Your task to perform on an android device: Open Maps and search for coffee Image 0: 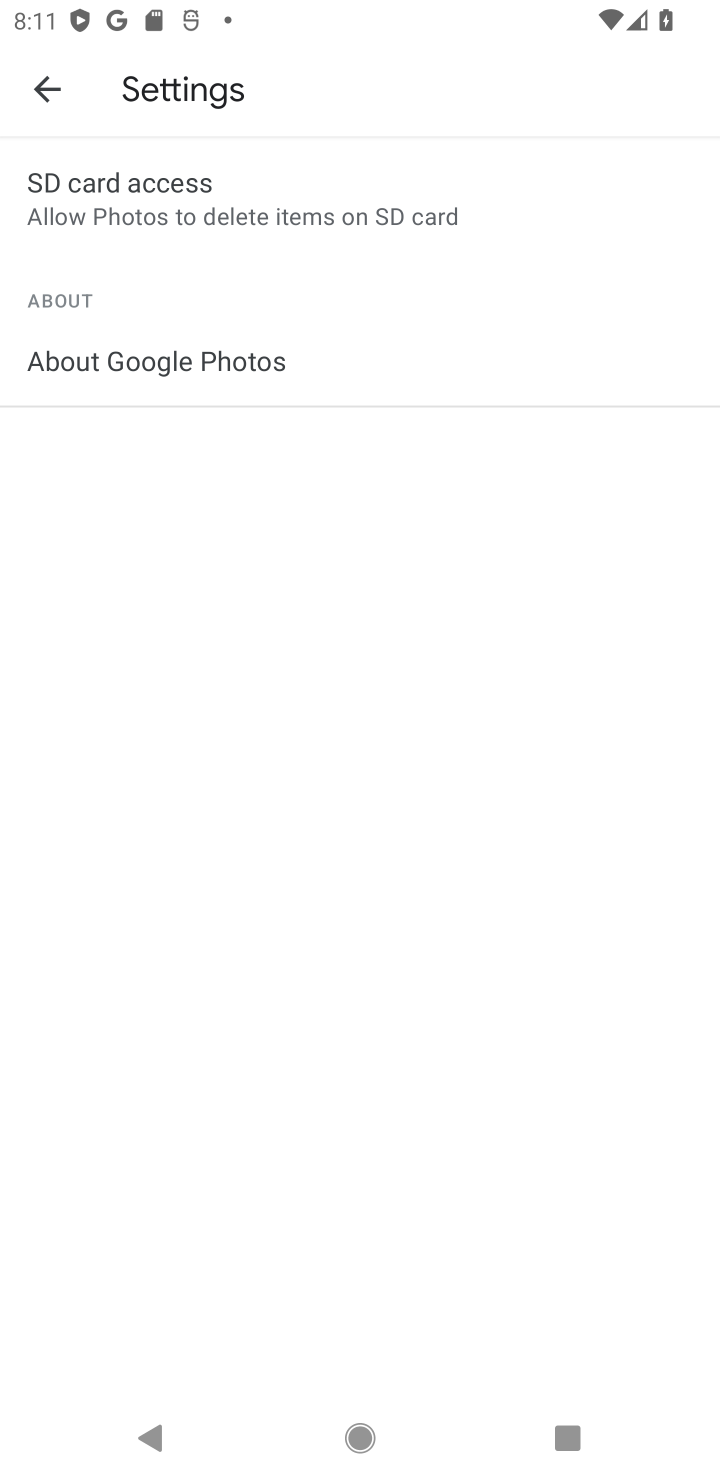
Step 0: press home button
Your task to perform on an android device: Open Maps and search for coffee Image 1: 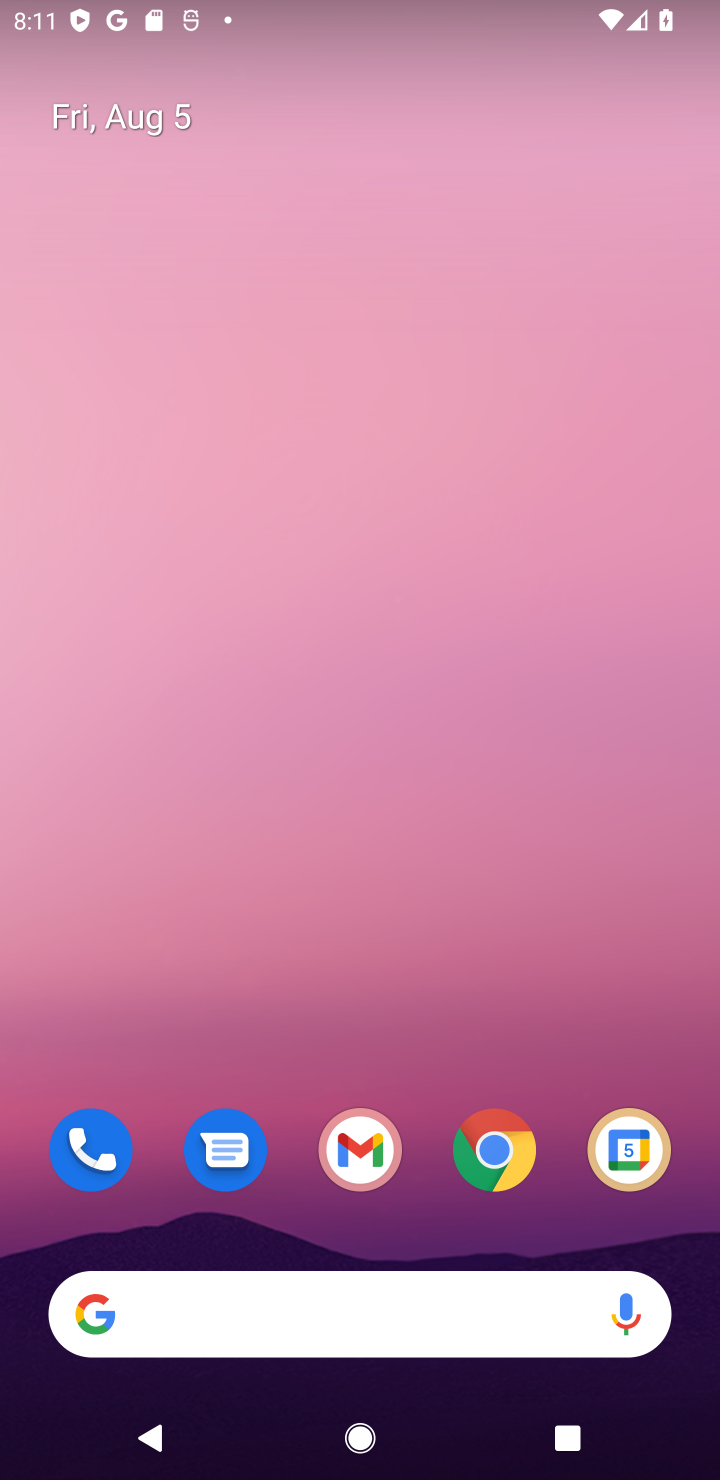
Step 1: drag from (425, 905) to (576, 96)
Your task to perform on an android device: Open Maps and search for coffee Image 2: 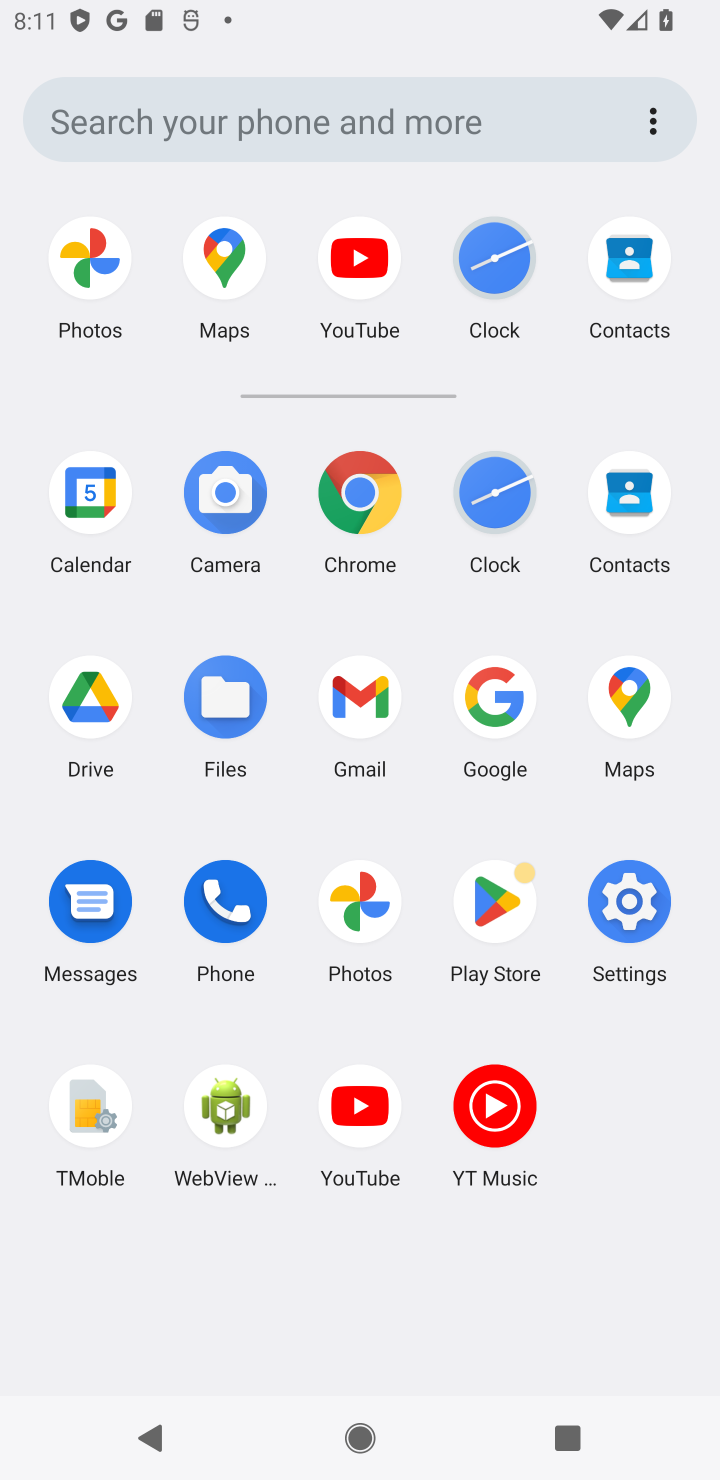
Step 2: click (628, 698)
Your task to perform on an android device: Open Maps and search for coffee Image 3: 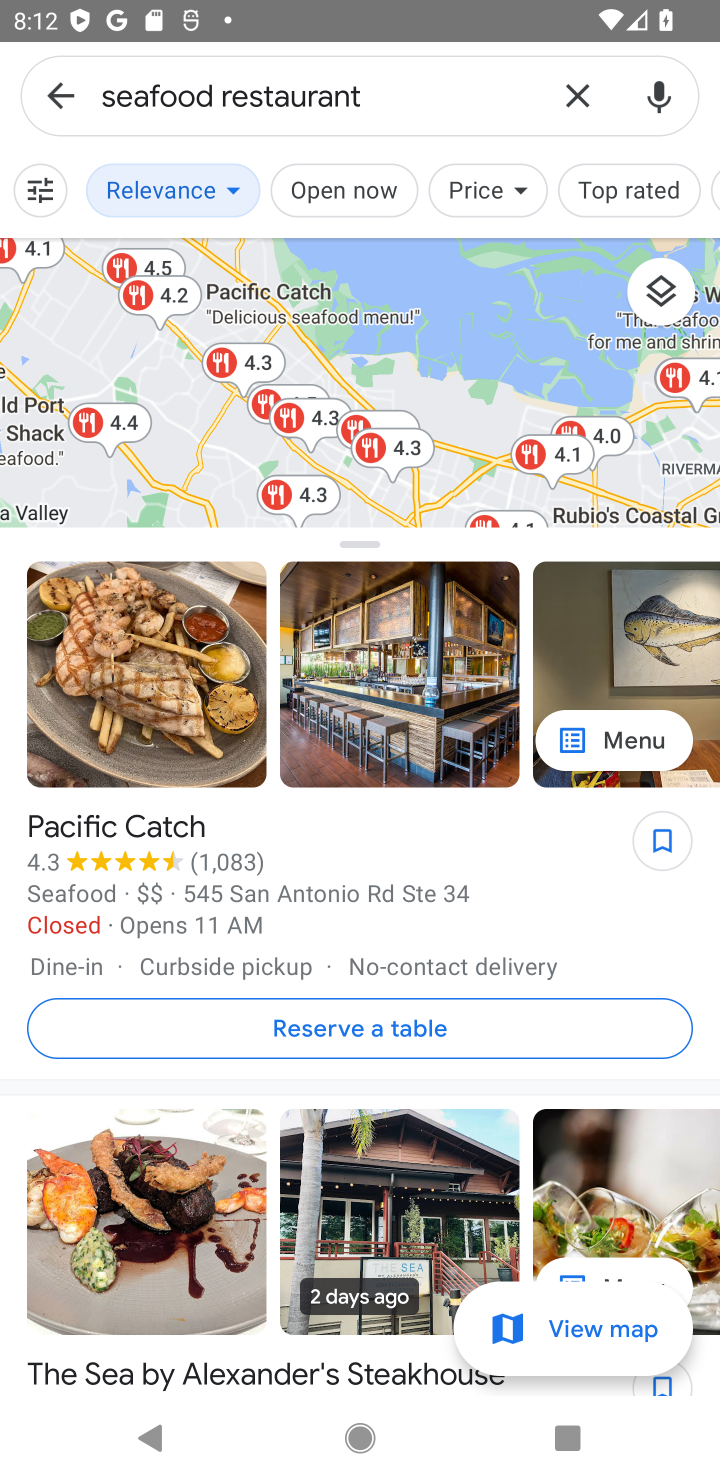
Step 3: click (583, 91)
Your task to perform on an android device: Open Maps and search for coffee Image 4: 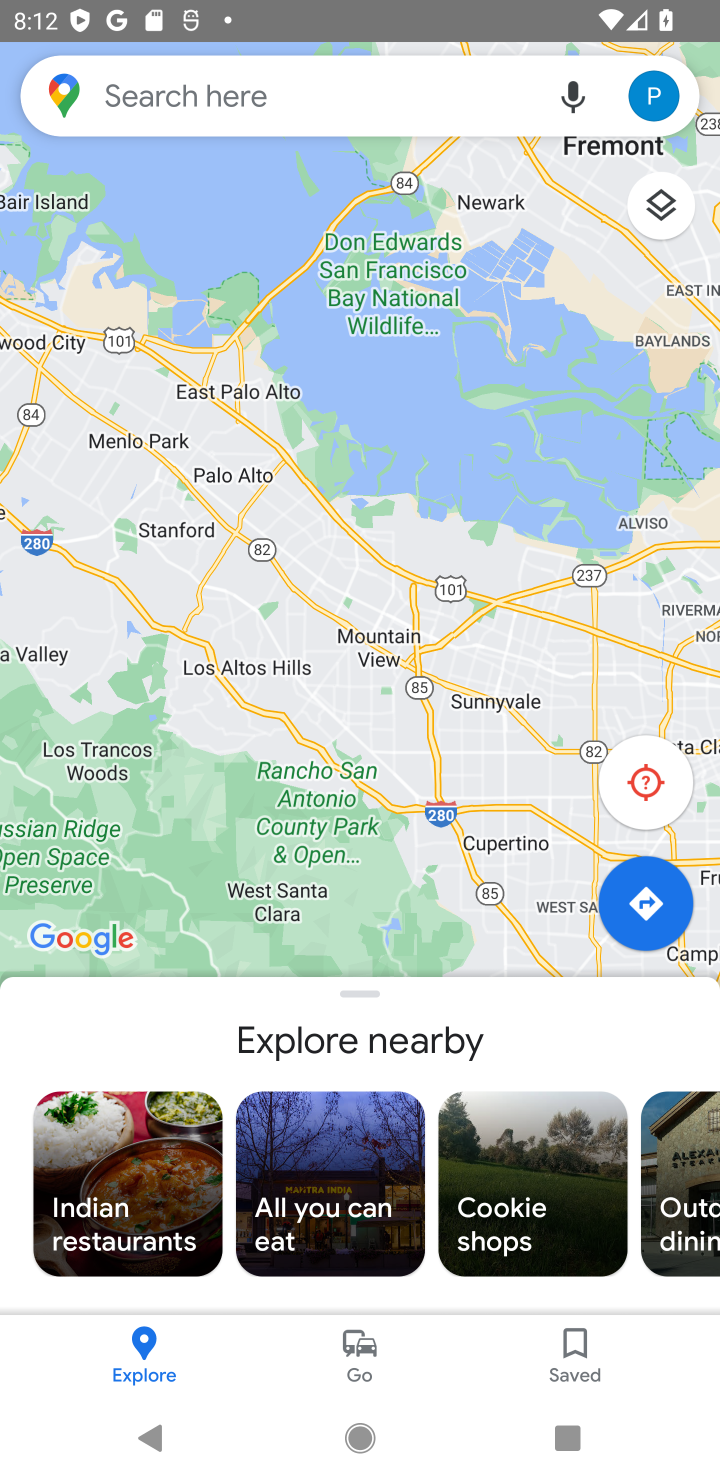
Step 4: click (276, 91)
Your task to perform on an android device: Open Maps and search for coffee Image 5: 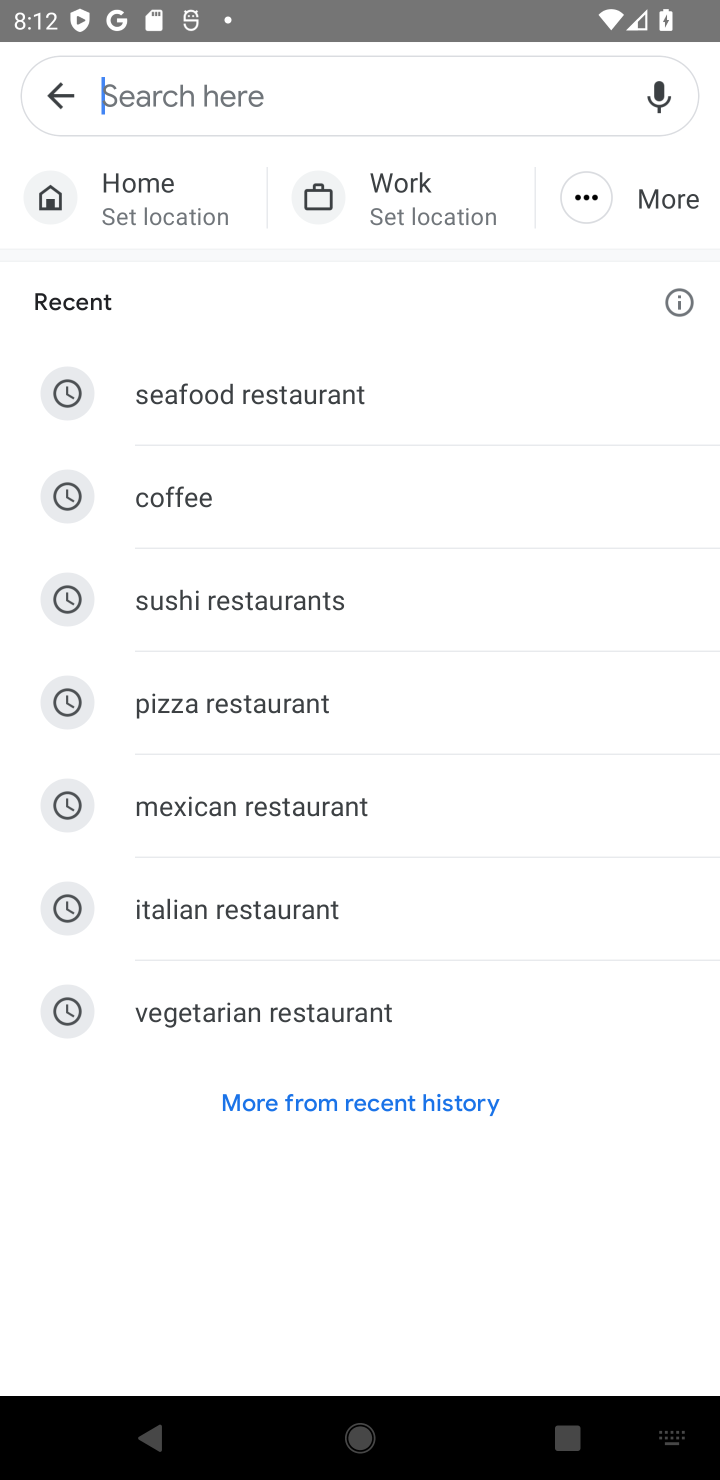
Step 5: type "coffee"
Your task to perform on an android device: Open Maps and search for coffee Image 6: 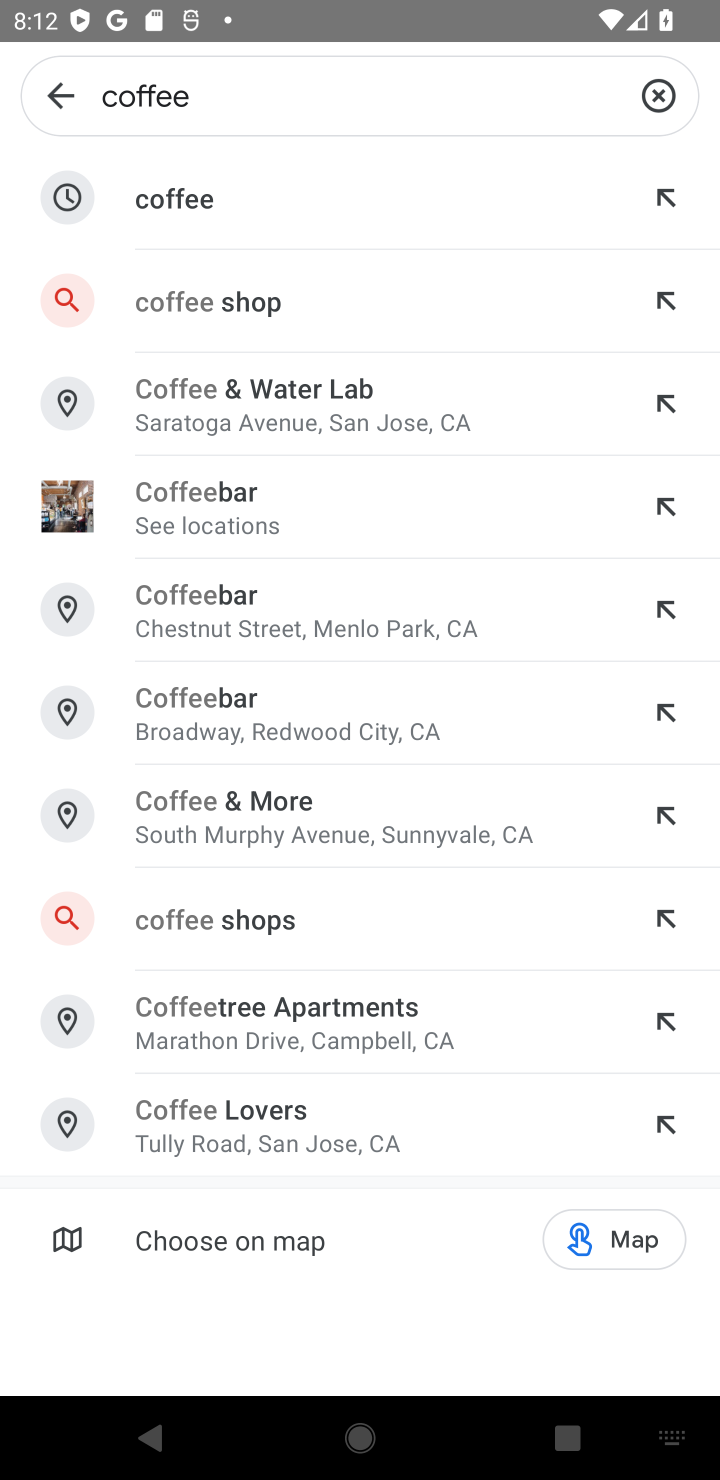
Step 6: click (243, 214)
Your task to perform on an android device: Open Maps and search for coffee Image 7: 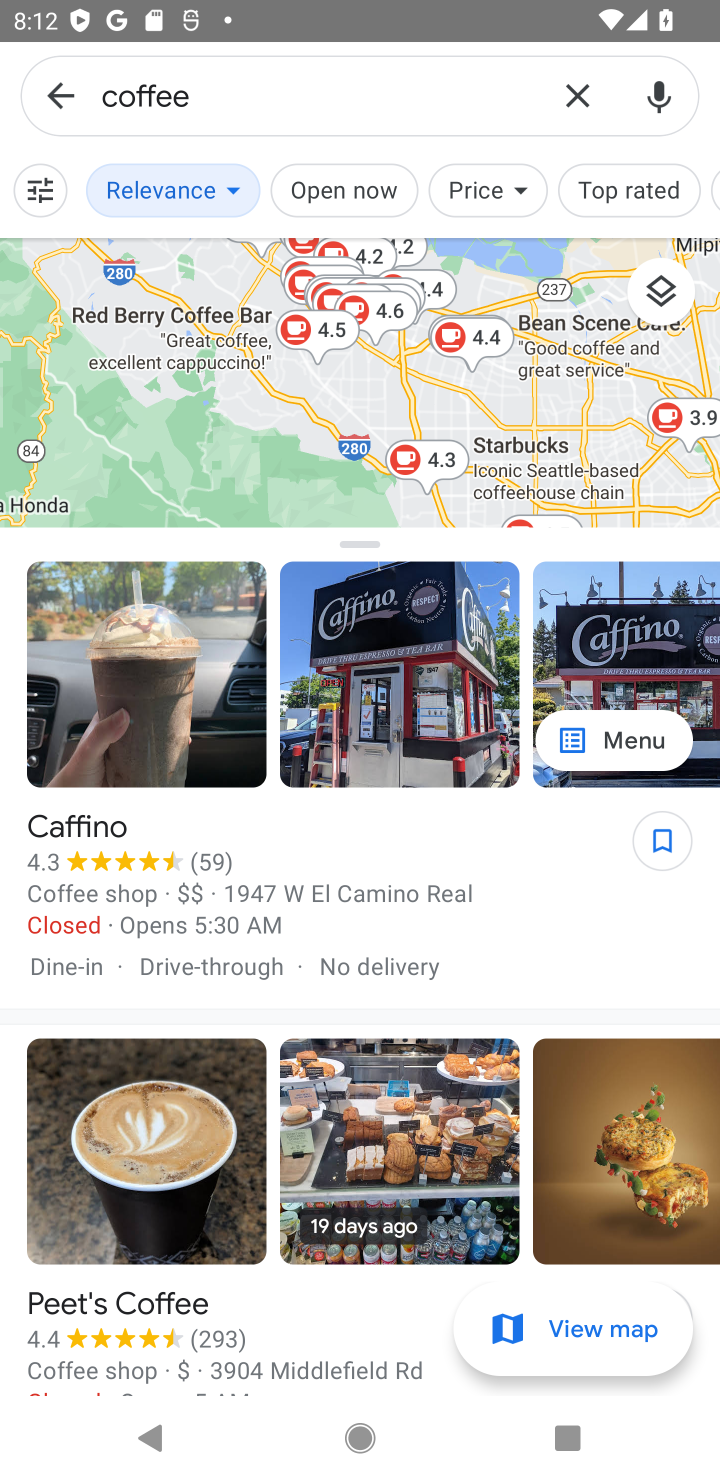
Step 7: task complete